Your task to perform on an android device: check storage Image 0: 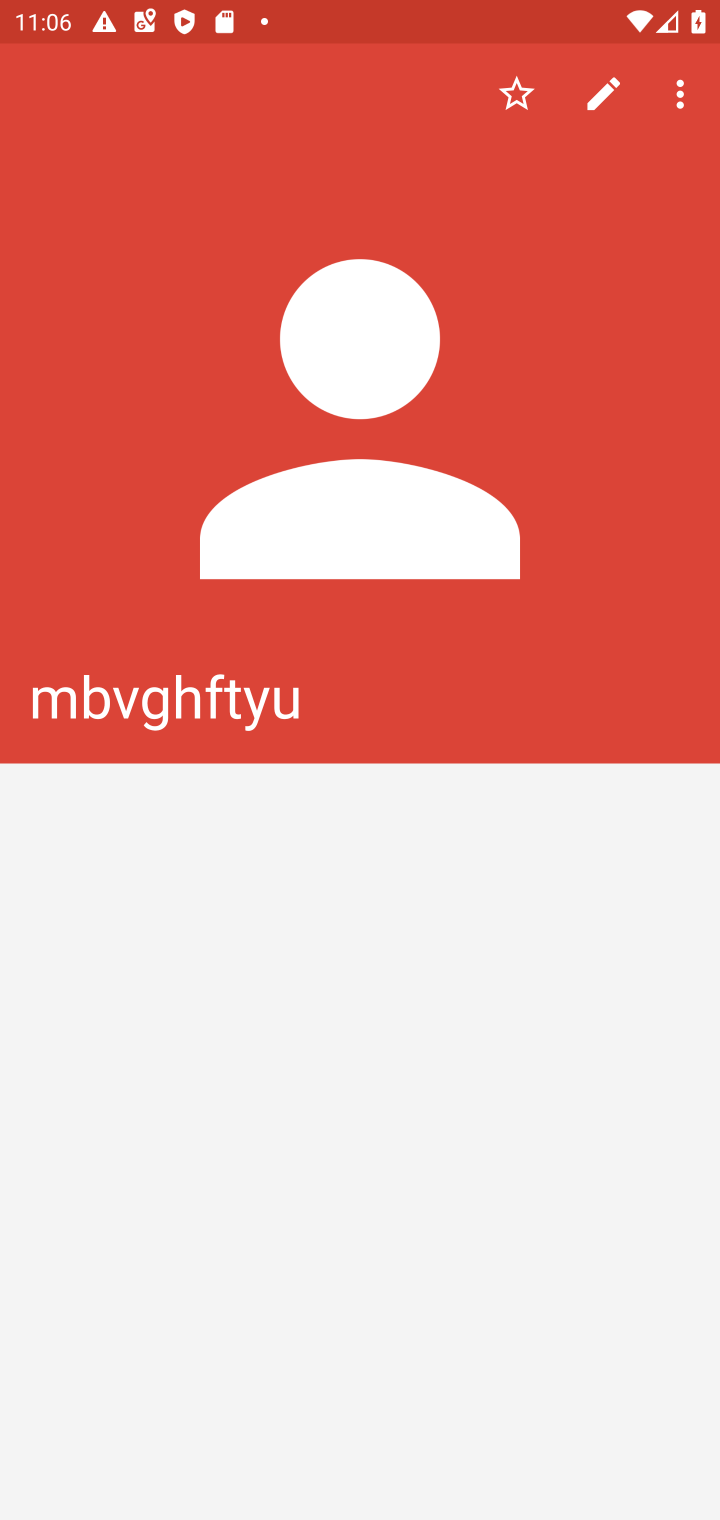
Step 0: press home button
Your task to perform on an android device: check storage Image 1: 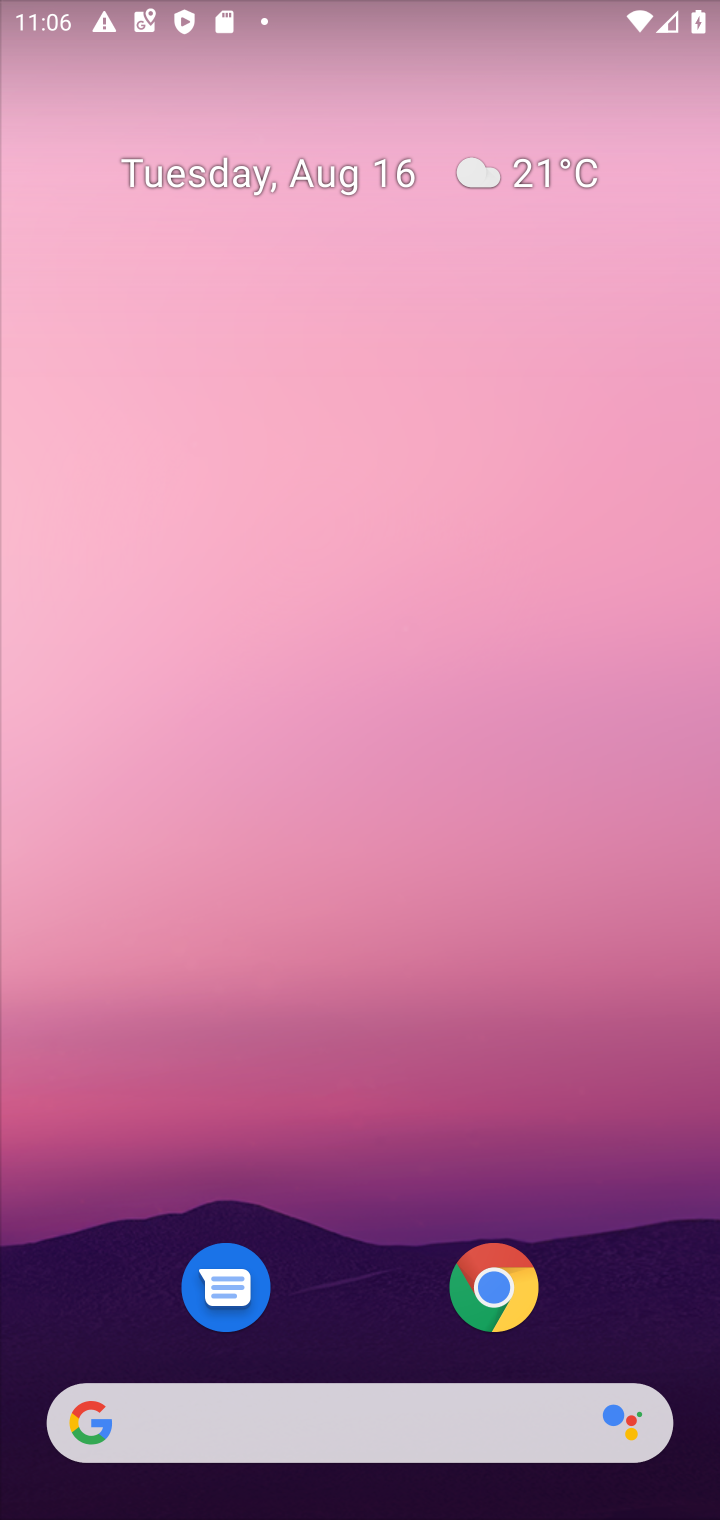
Step 1: drag from (669, 1315) to (620, 269)
Your task to perform on an android device: check storage Image 2: 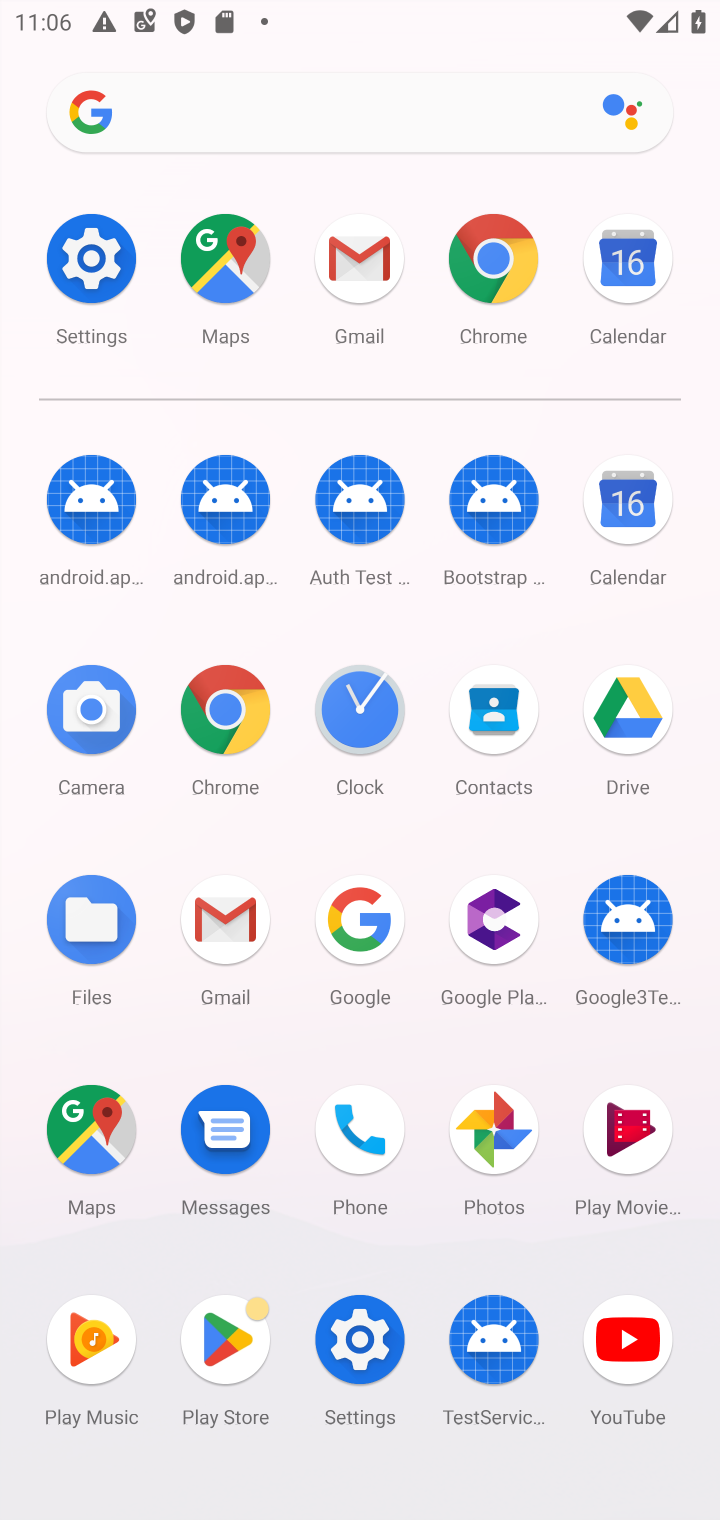
Step 2: click (369, 1345)
Your task to perform on an android device: check storage Image 3: 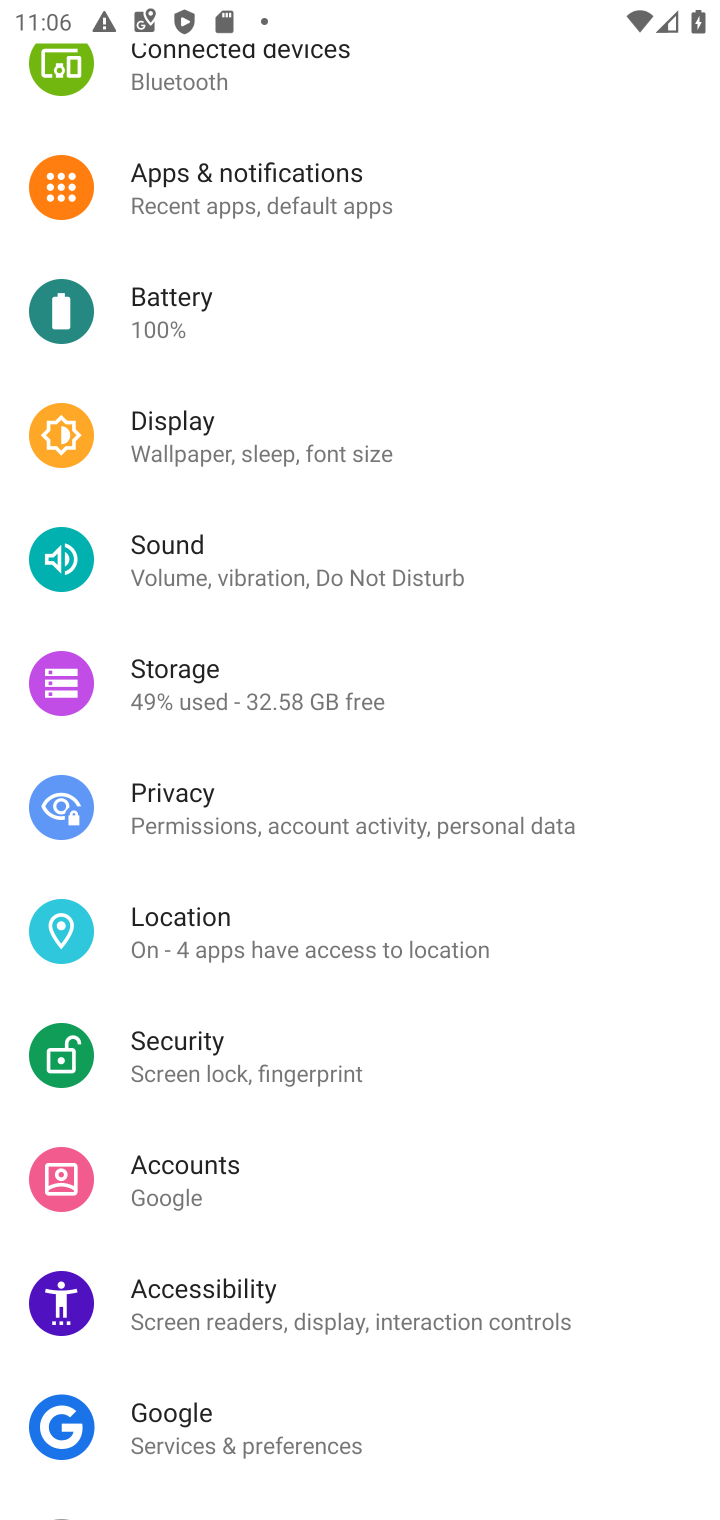
Step 3: click (187, 676)
Your task to perform on an android device: check storage Image 4: 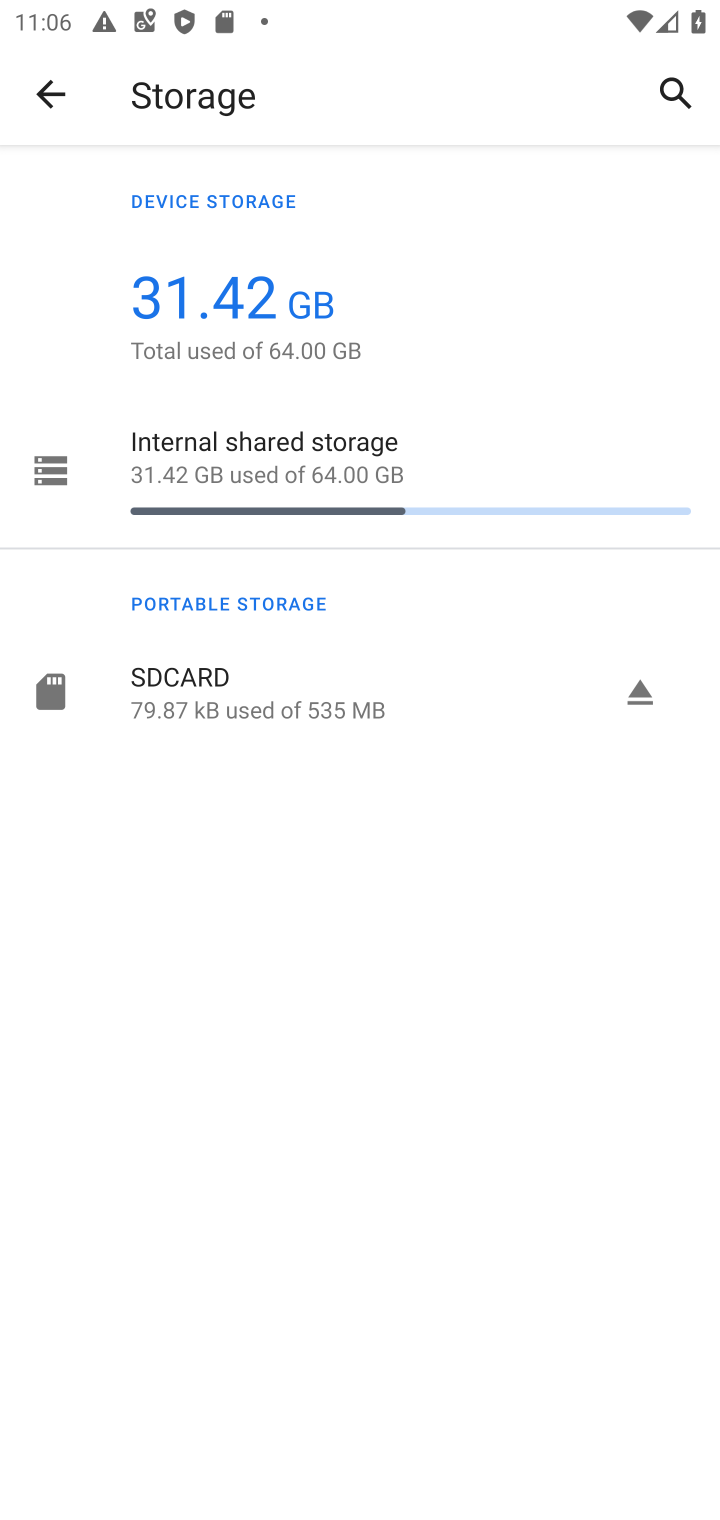
Step 4: task complete